Your task to perform on an android device: Open calendar and show me the third week of next month Image 0: 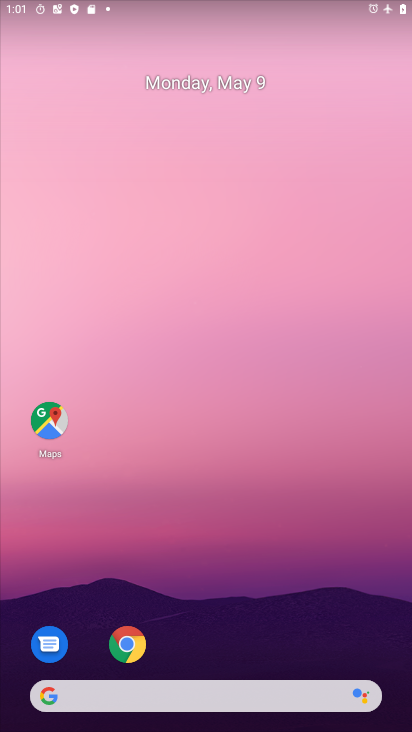
Step 0: drag from (375, 697) to (199, 103)
Your task to perform on an android device: Open calendar and show me the third week of next month Image 1: 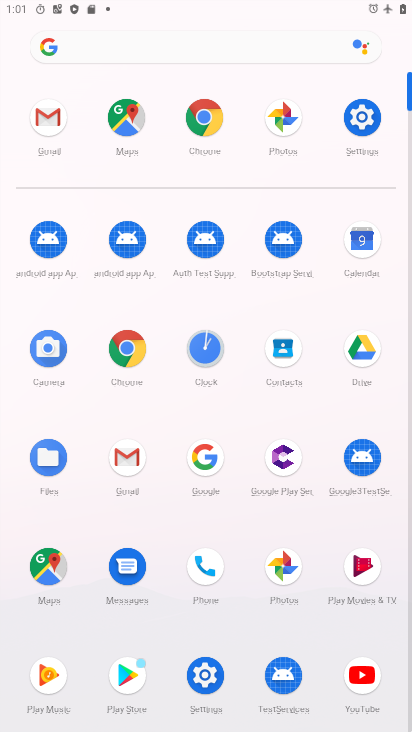
Step 1: click (358, 240)
Your task to perform on an android device: Open calendar and show me the third week of next month Image 2: 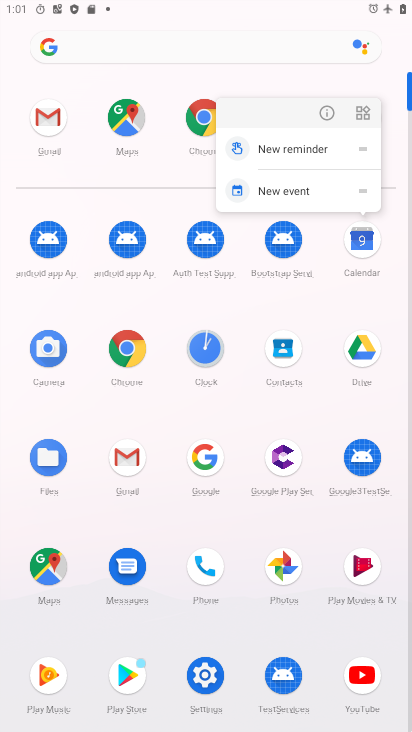
Step 2: click (372, 248)
Your task to perform on an android device: Open calendar and show me the third week of next month Image 3: 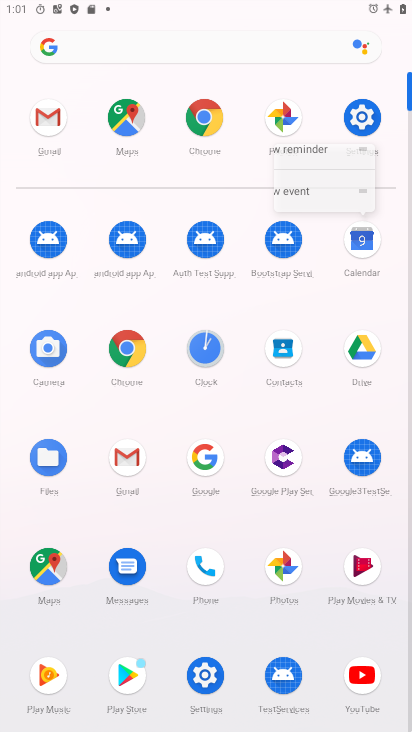
Step 3: click (372, 248)
Your task to perform on an android device: Open calendar and show me the third week of next month Image 4: 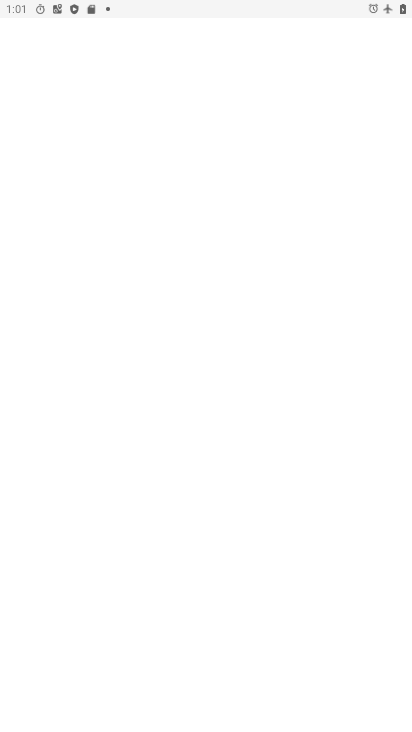
Step 4: click (365, 242)
Your task to perform on an android device: Open calendar and show me the third week of next month Image 5: 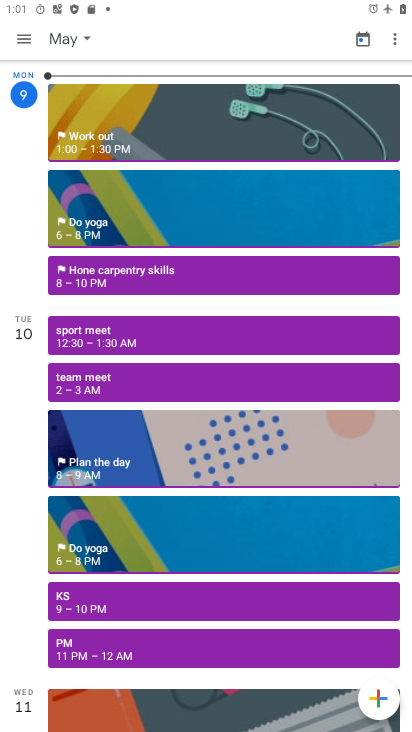
Step 5: click (87, 37)
Your task to perform on an android device: Open calendar and show me the third week of next month Image 6: 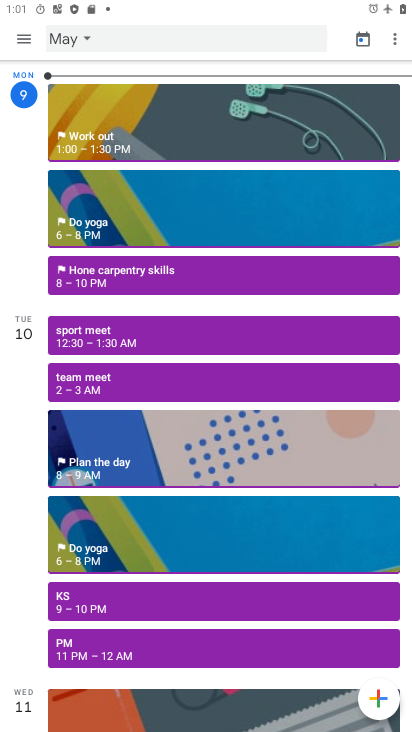
Step 6: click (87, 37)
Your task to perform on an android device: Open calendar and show me the third week of next month Image 7: 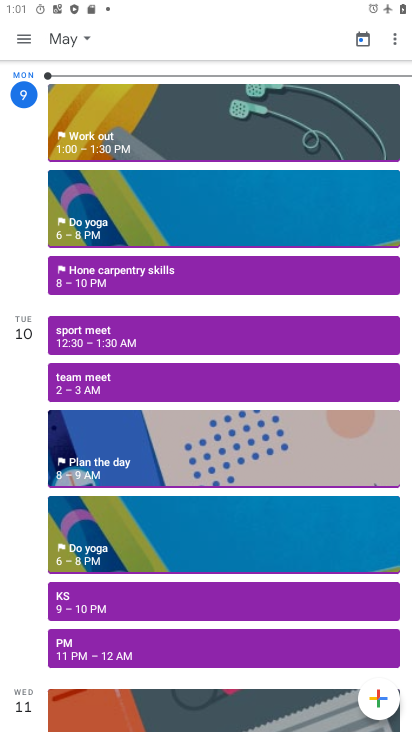
Step 7: drag from (88, 38) to (167, 551)
Your task to perform on an android device: Open calendar and show me the third week of next month Image 8: 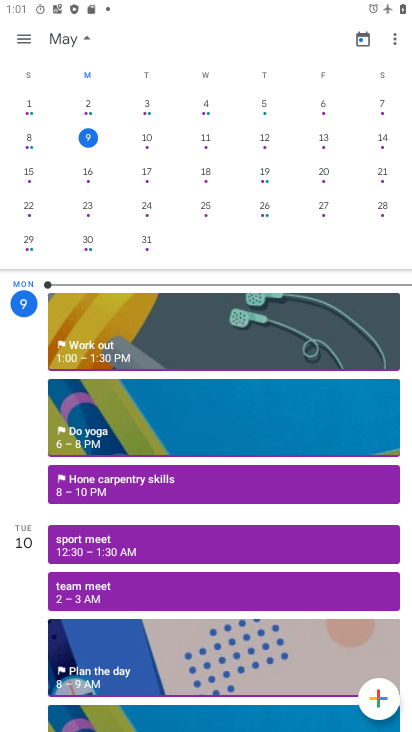
Step 8: drag from (304, 164) to (196, 175)
Your task to perform on an android device: Open calendar and show me the third week of next month Image 9: 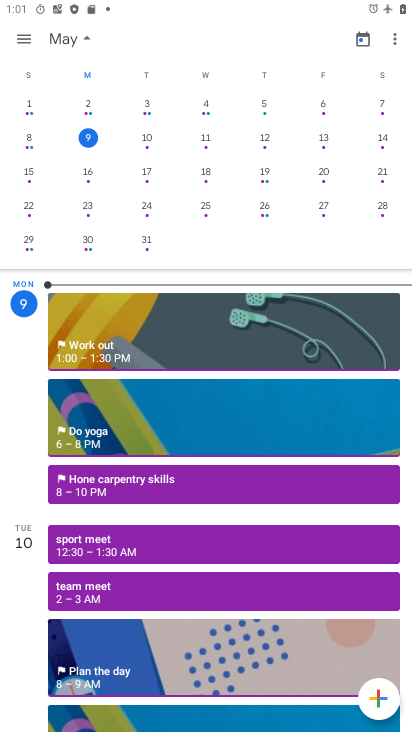
Step 9: drag from (294, 198) to (20, 148)
Your task to perform on an android device: Open calendar and show me the third week of next month Image 10: 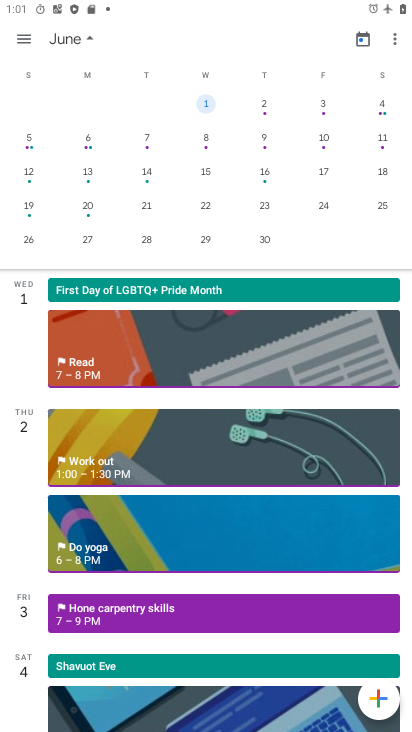
Step 10: drag from (273, 176) to (25, 126)
Your task to perform on an android device: Open calendar and show me the third week of next month Image 11: 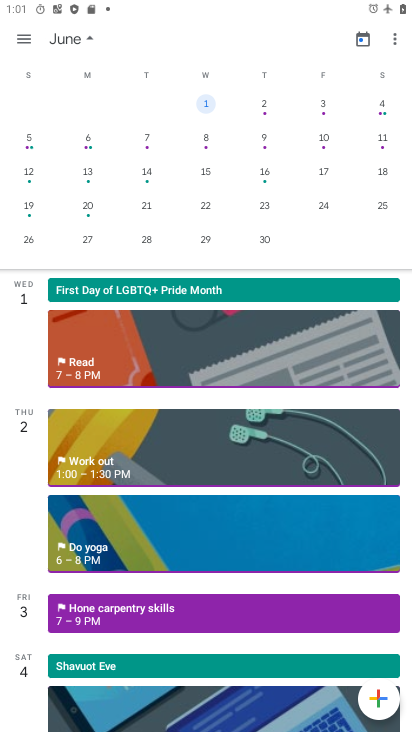
Step 11: click (201, 171)
Your task to perform on an android device: Open calendar and show me the third week of next month Image 12: 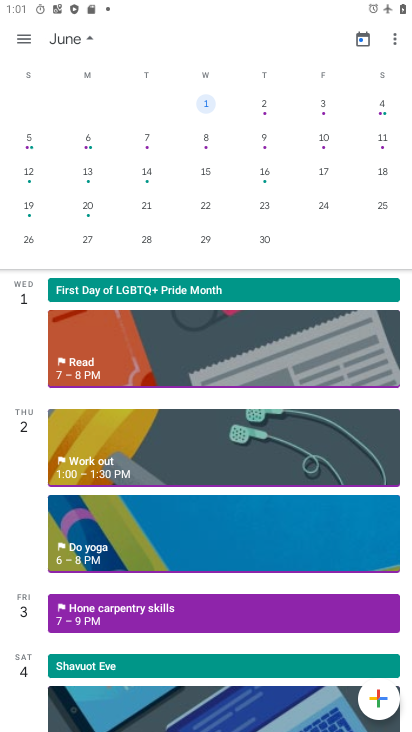
Step 12: click (201, 171)
Your task to perform on an android device: Open calendar and show me the third week of next month Image 13: 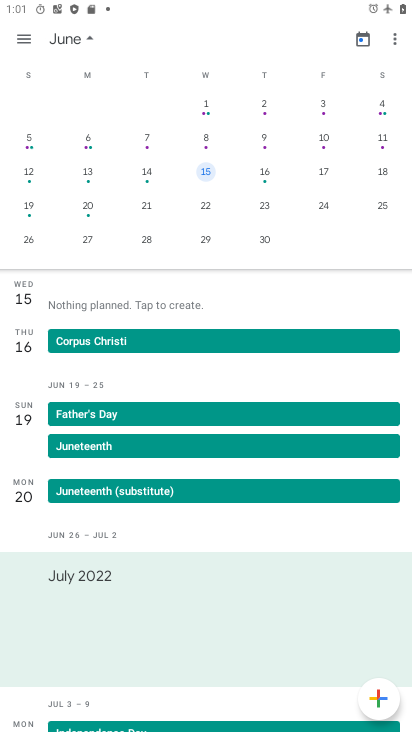
Step 13: click (201, 171)
Your task to perform on an android device: Open calendar and show me the third week of next month Image 14: 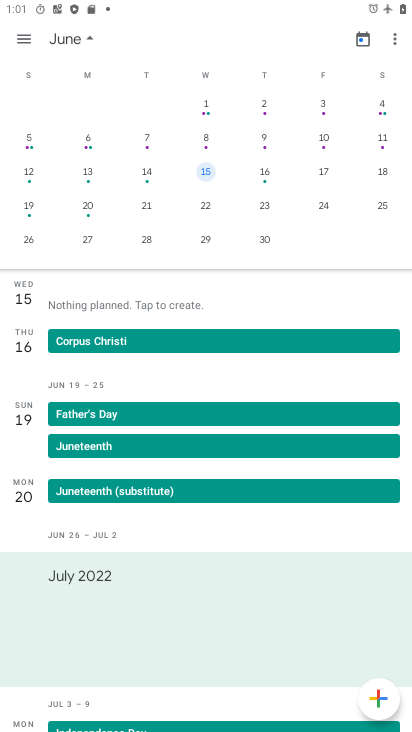
Step 14: click (204, 171)
Your task to perform on an android device: Open calendar and show me the third week of next month Image 15: 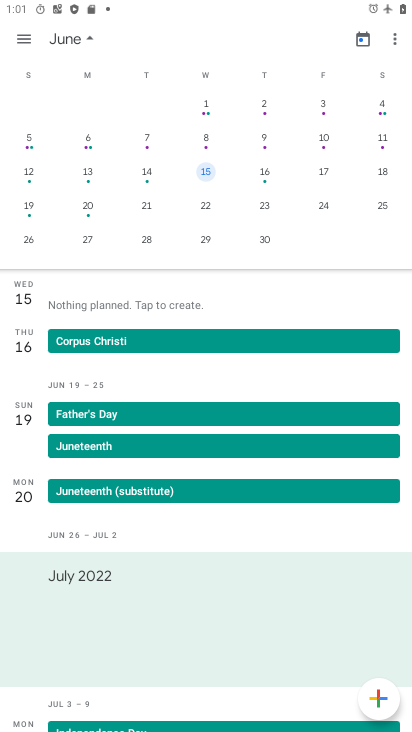
Step 15: task complete